Your task to perform on an android device: change notifications settings Image 0: 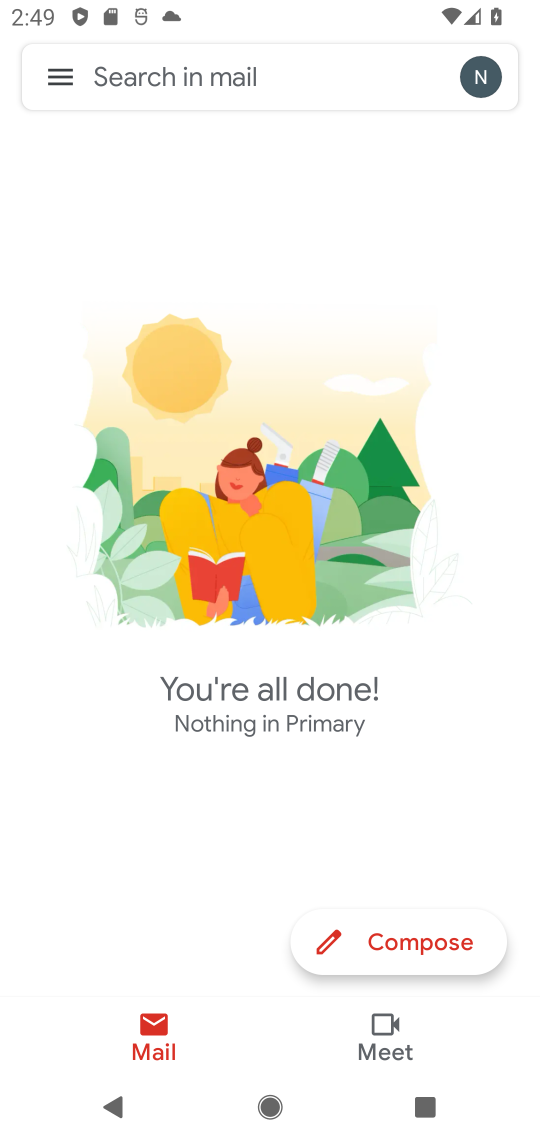
Step 0: press home button
Your task to perform on an android device: change notifications settings Image 1: 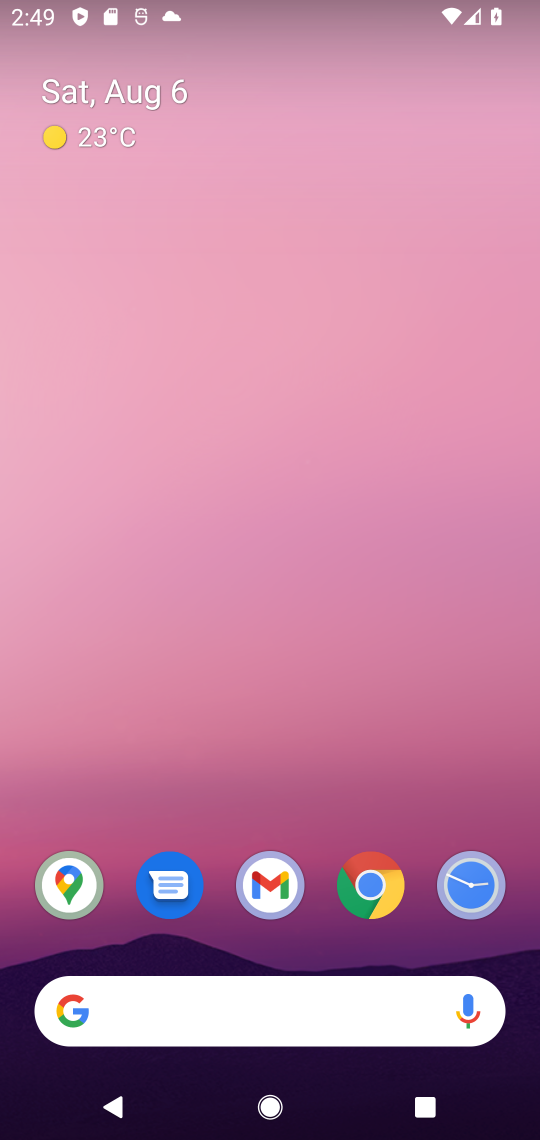
Step 1: drag from (520, 999) to (267, 95)
Your task to perform on an android device: change notifications settings Image 2: 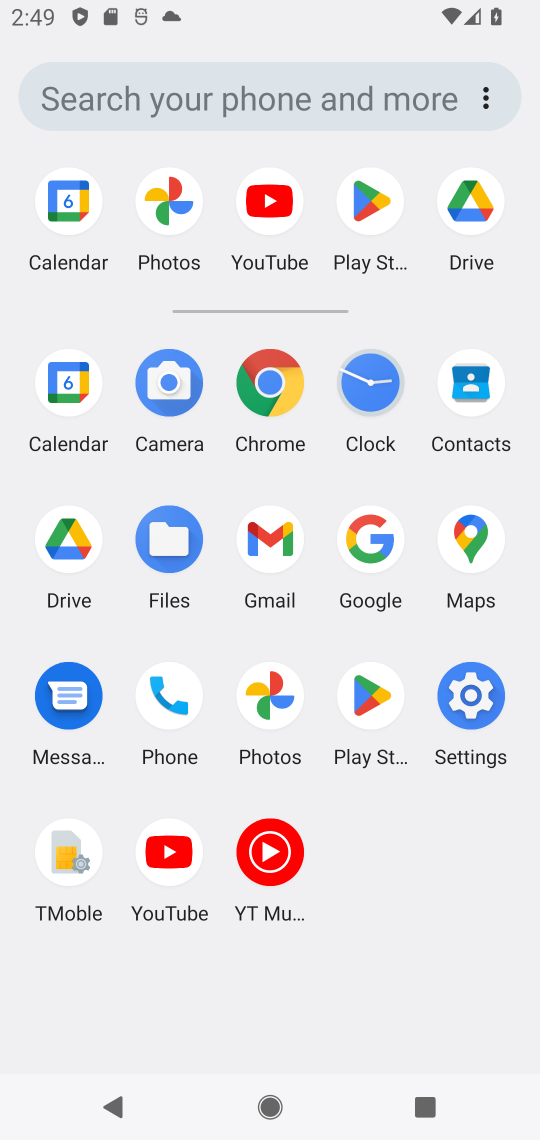
Step 2: click (484, 723)
Your task to perform on an android device: change notifications settings Image 3: 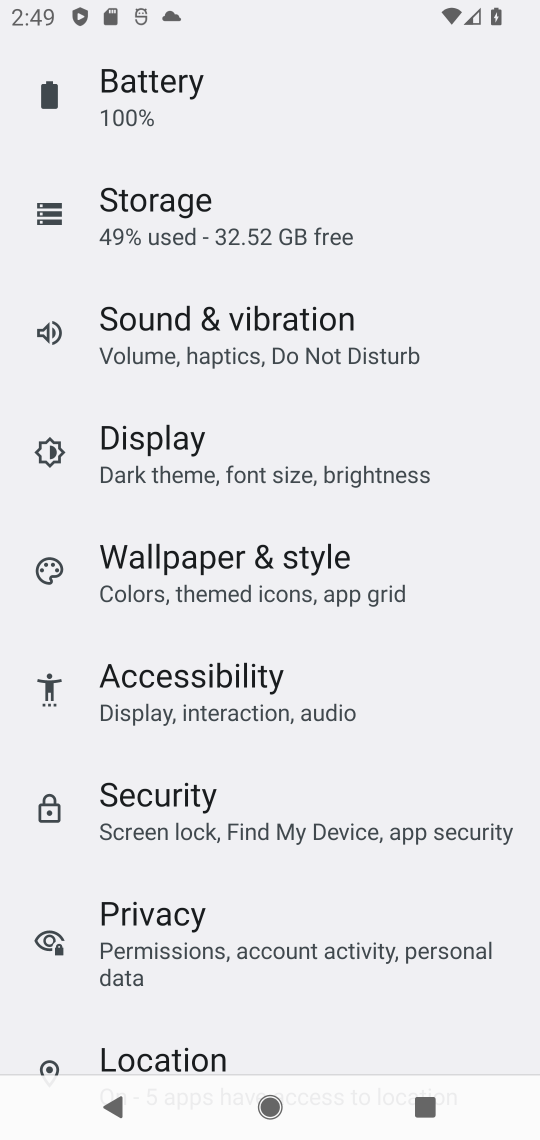
Step 3: drag from (182, 178) to (290, 902)
Your task to perform on an android device: change notifications settings Image 4: 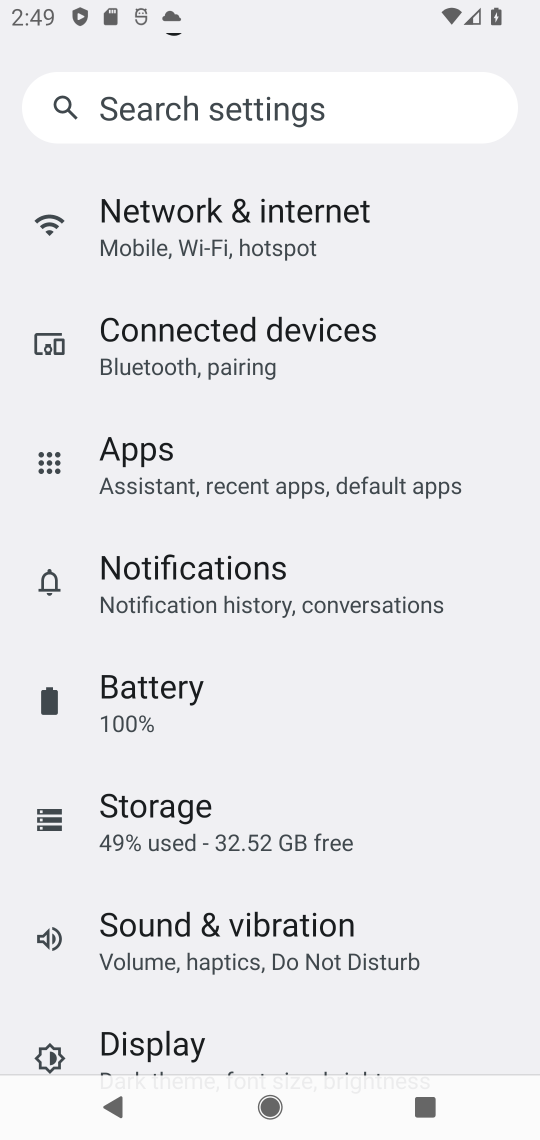
Step 4: click (237, 597)
Your task to perform on an android device: change notifications settings Image 5: 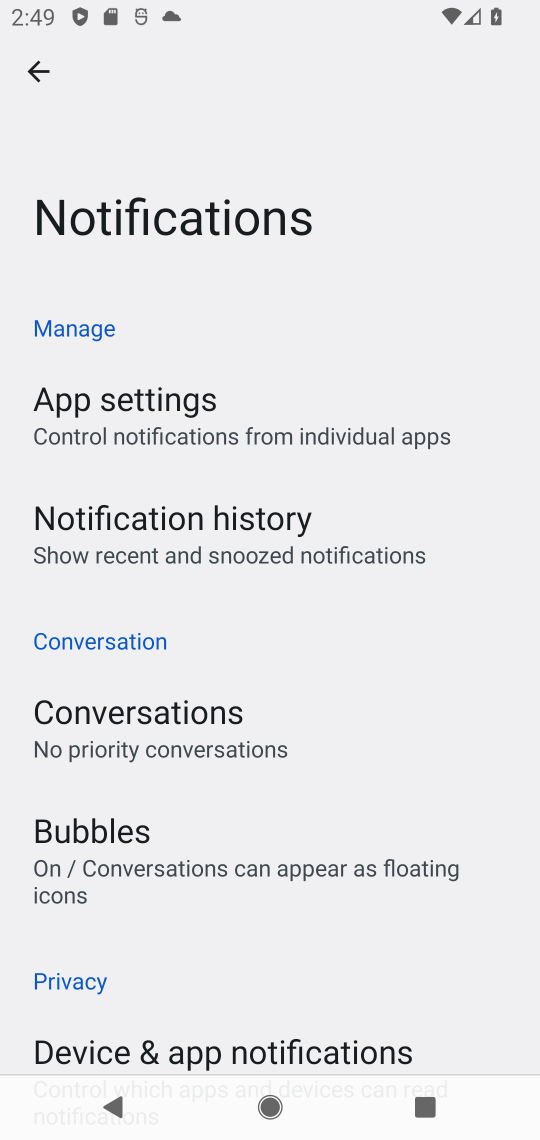
Step 5: task complete